Your task to perform on an android device: change the clock display to digital Image 0: 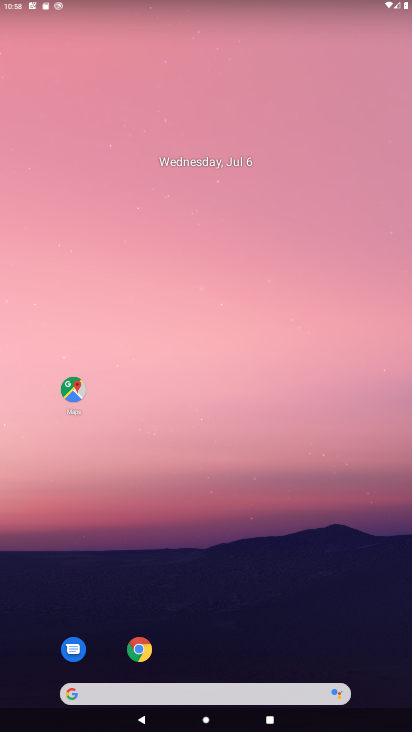
Step 0: drag from (233, 635) to (312, 75)
Your task to perform on an android device: change the clock display to digital Image 1: 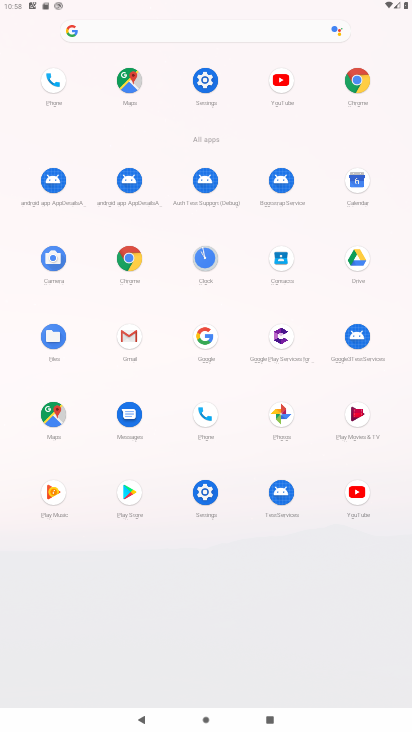
Step 1: click (199, 263)
Your task to perform on an android device: change the clock display to digital Image 2: 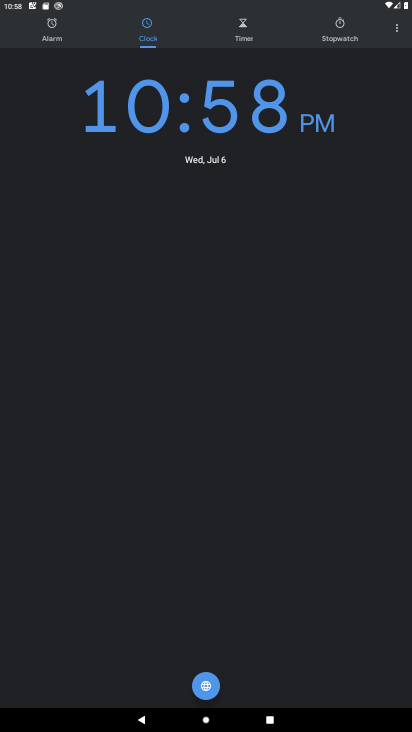
Step 2: click (389, 18)
Your task to perform on an android device: change the clock display to digital Image 3: 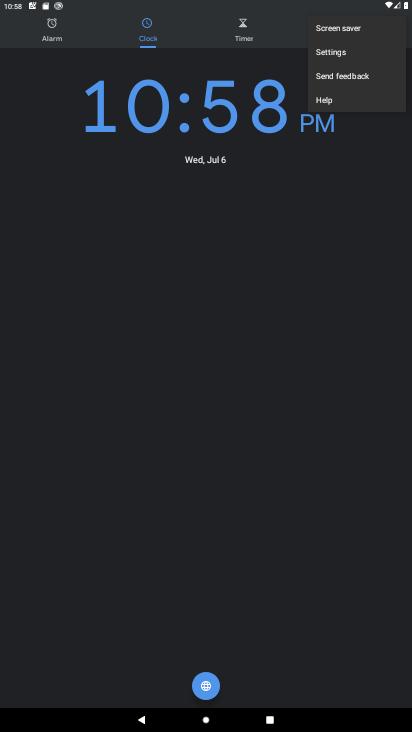
Step 3: click (346, 51)
Your task to perform on an android device: change the clock display to digital Image 4: 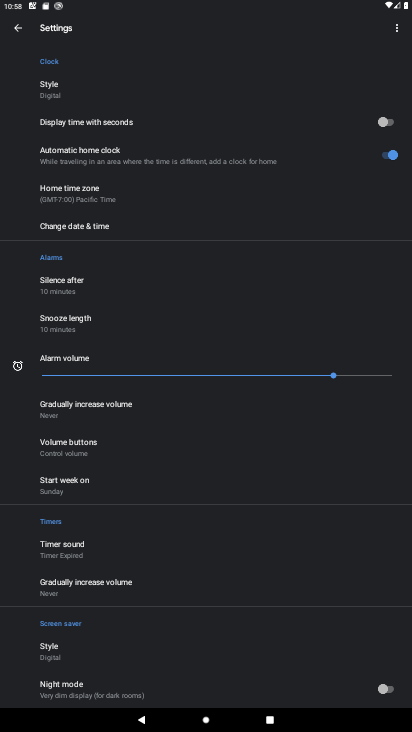
Step 4: task complete